Your task to perform on an android device: move a message to another label in the gmail app Image 0: 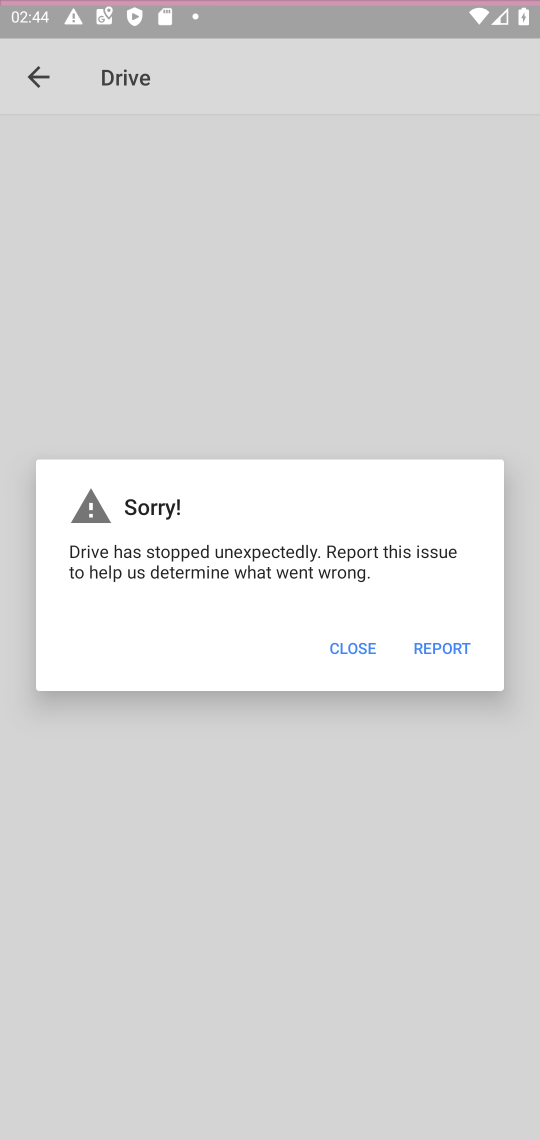
Step 0: press home button
Your task to perform on an android device: move a message to another label in the gmail app Image 1: 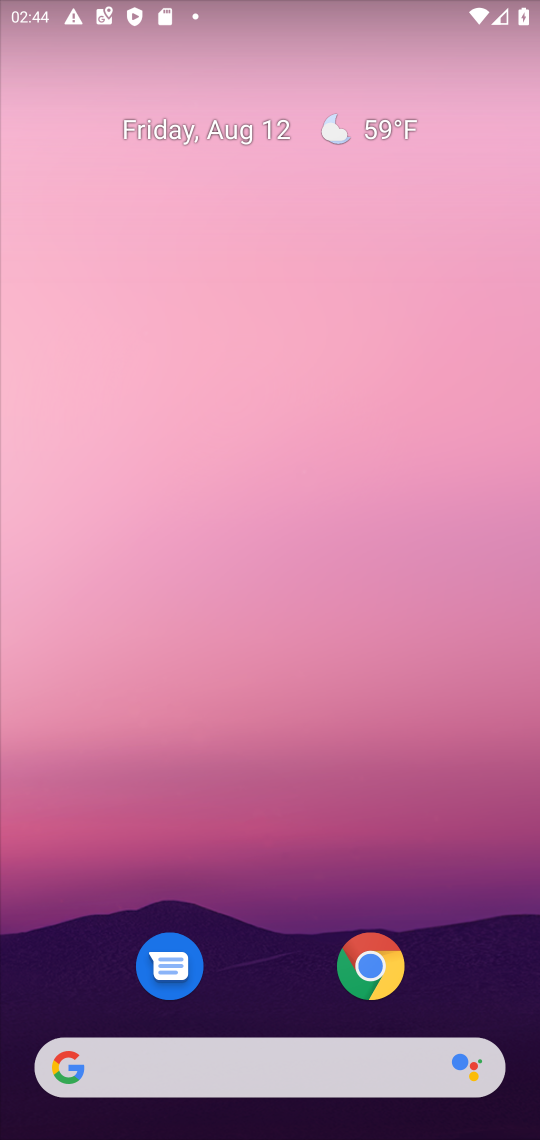
Step 1: drag from (222, 918) to (318, 98)
Your task to perform on an android device: move a message to another label in the gmail app Image 2: 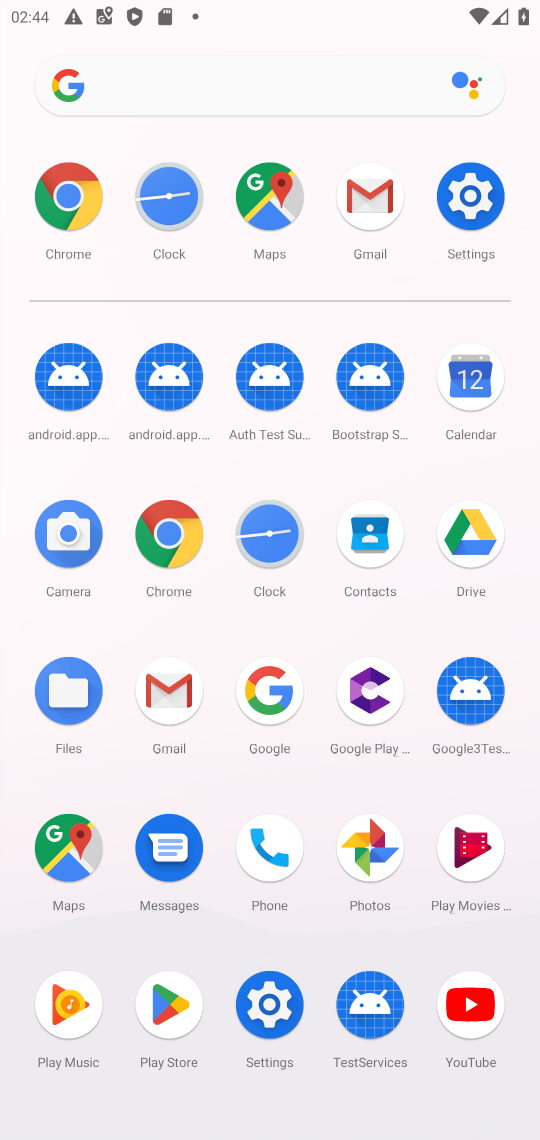
Step 2: click (165, 697)
Your task to perform on an android device: move a message to another label in the gmail app Image 3: 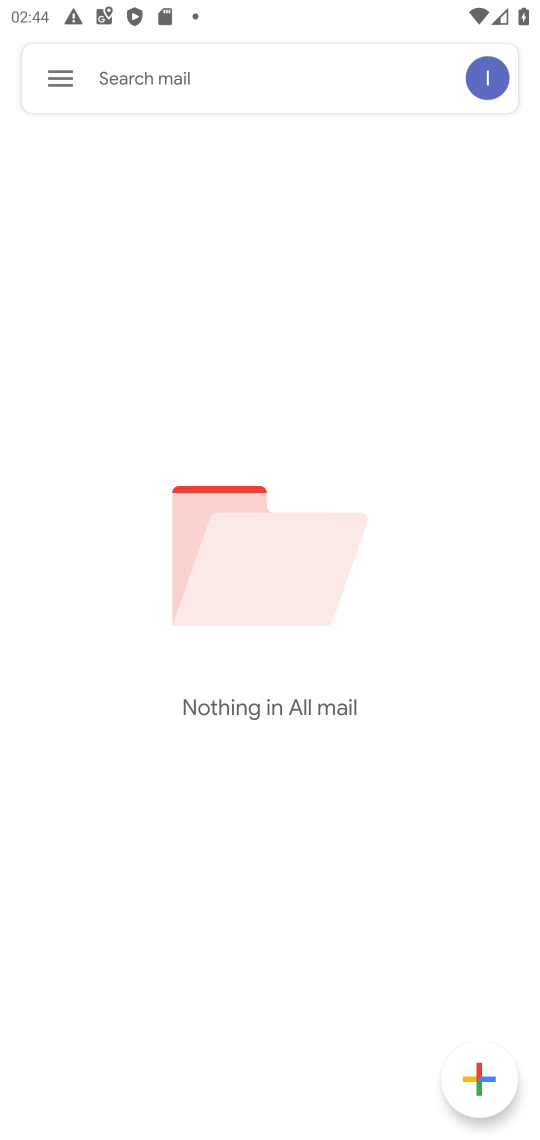
Step 3: task complete